Your task to perform on an android device: Open wifi settings Image 0: 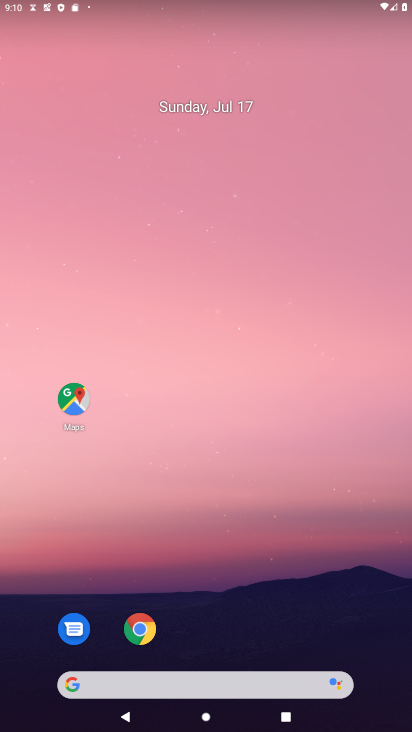
Step 0: drag from (230, 721) to (194, 42)
Your task to perform on an android device: Open wifi settings Image 1: 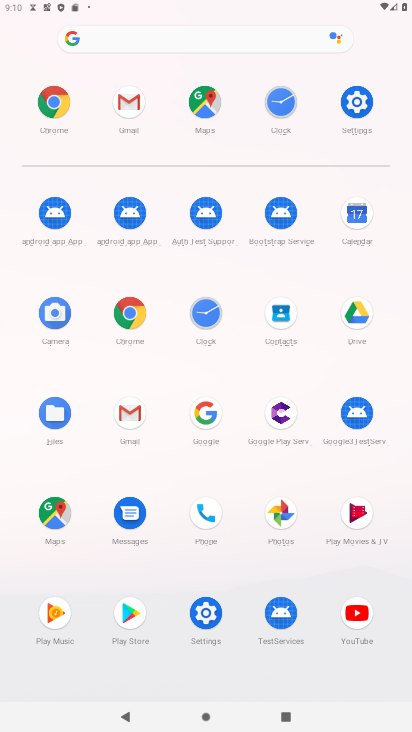
Step 1: click (359, 97)
Your task to perform on an android device: Open wifi settings Image 2: 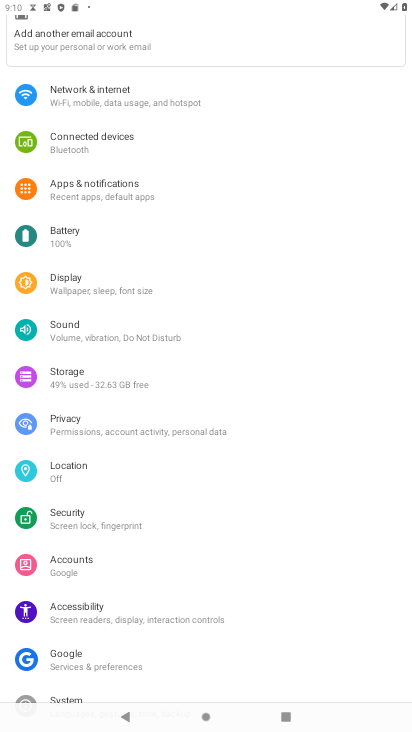
Step 2: click (105, 97)
Your task to perform on an android device: Open wifi settings Image 3: 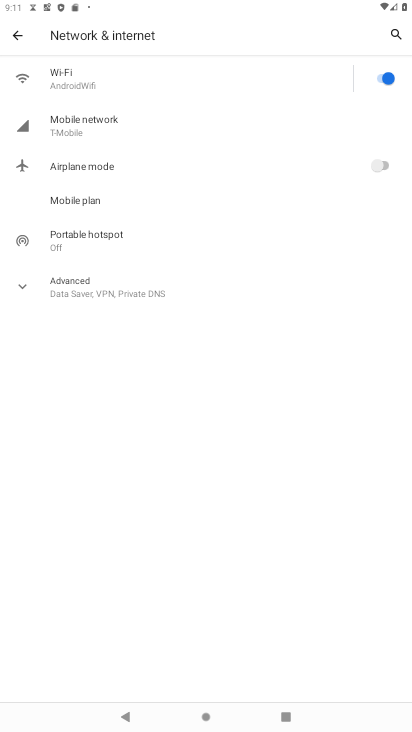
Step 3: click (61, 77)
Your task to perform on an android device: Open wifi settings Image 4: 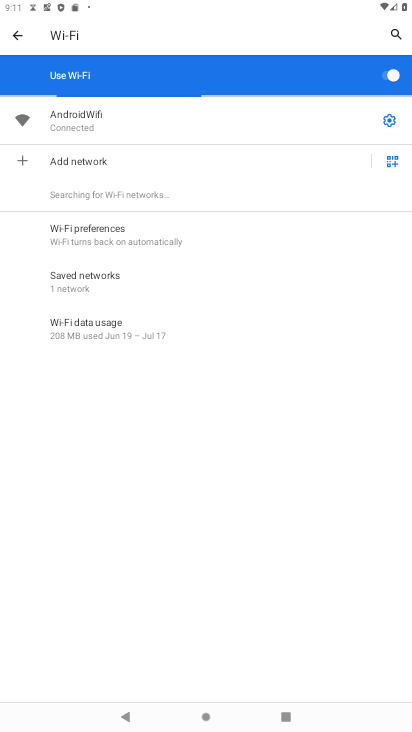
Step 4: task complete